Your task to perform on an android device: Go to Amazon Image 0: 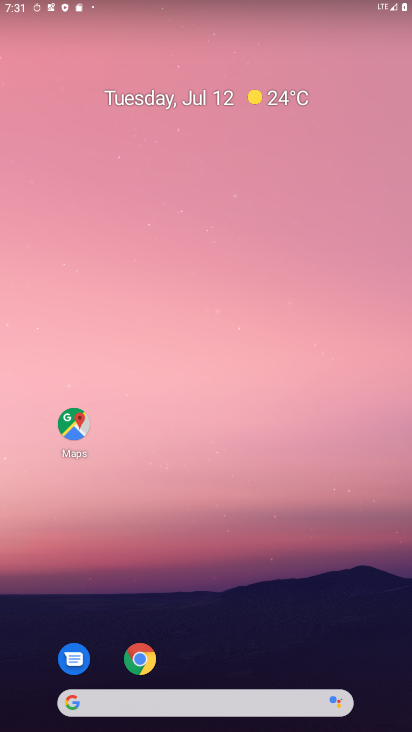
Step 0: drag from (342, 624) to (262, 79)
Your task to perform on an android device: Go to Amazon Image 1: 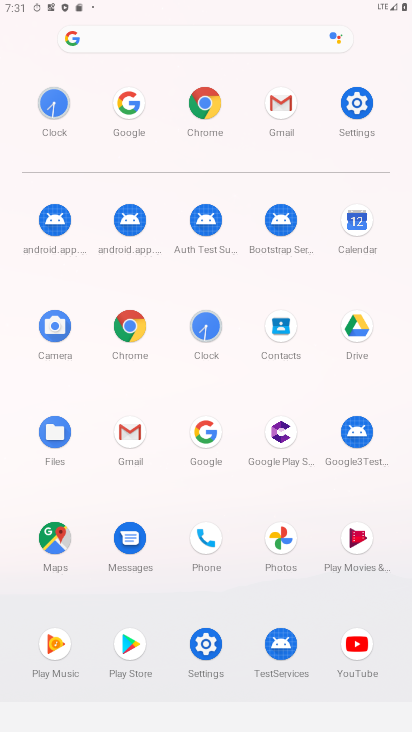
Step 1: click (203, 429)
Your task to perform on an android device: Go to Amazon Image 2: 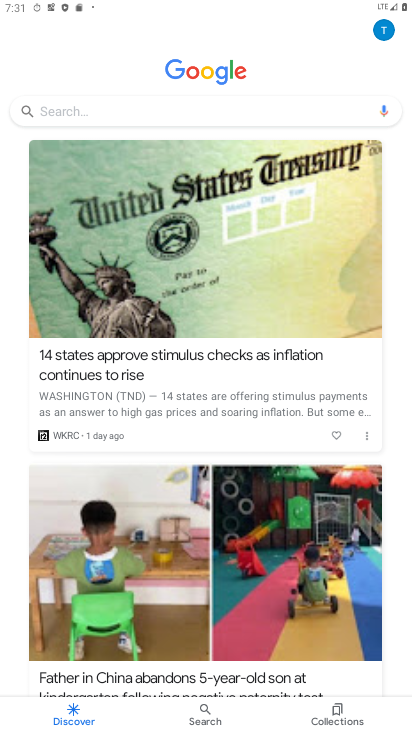
Step 2: click (152, 112)
Your task to perform on an android device: Go to Amazon Image 3: 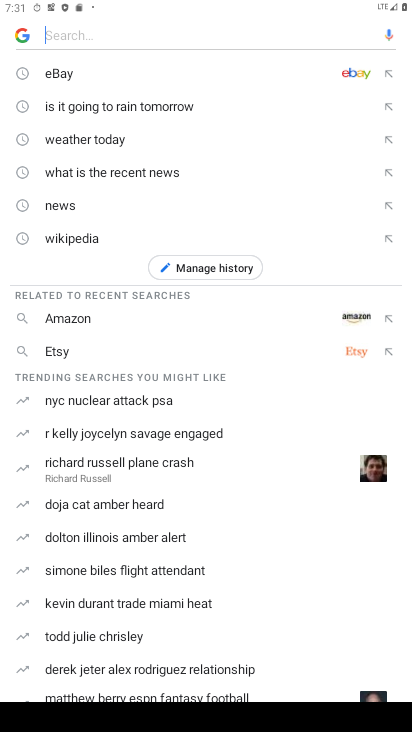
Step 3: click (91, 314)
Your task to perform on an android device: Go to Amazon Image 4: 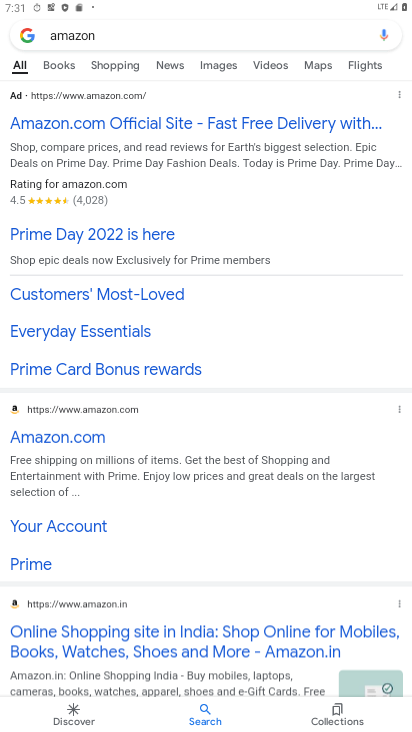
Step 4: task complete